Your task to perform on an android device: turn on improve location accuracy Image 0: 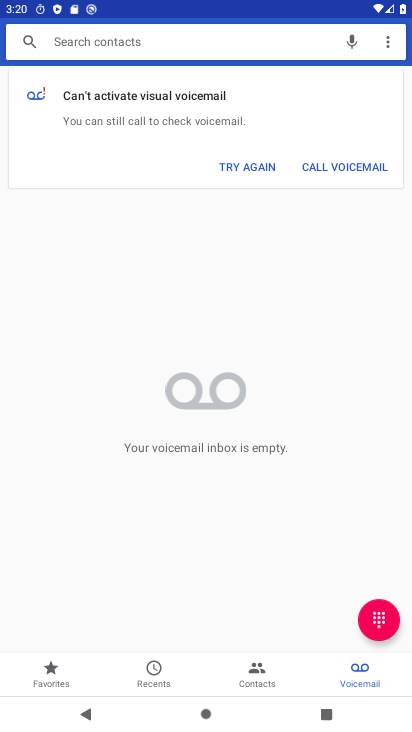
Step 0: press home button
Your task to perform on an android device: turn on improve location accuracy Image 1: 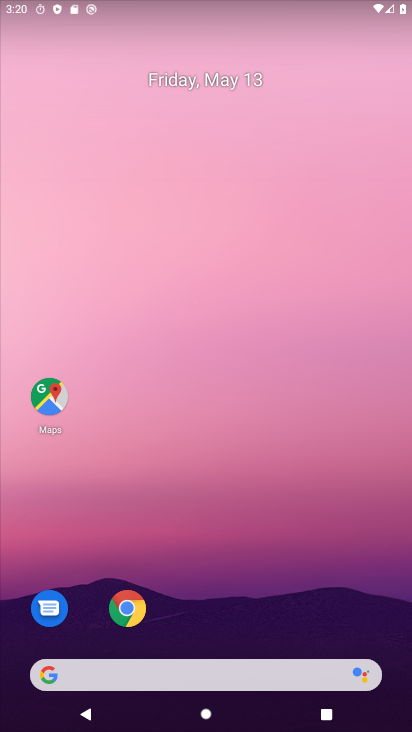
Step 1: drag from (273, 614) to (348, 65)
Your task to perform on an android device: turn on improve location accuracy Image 2: 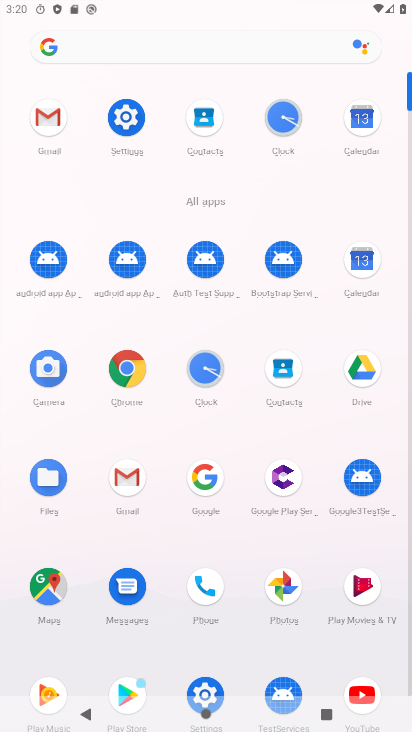
Step 2: click (132, 98)
Your task to perform on an android device: turn on improve location accuracy Image 3: 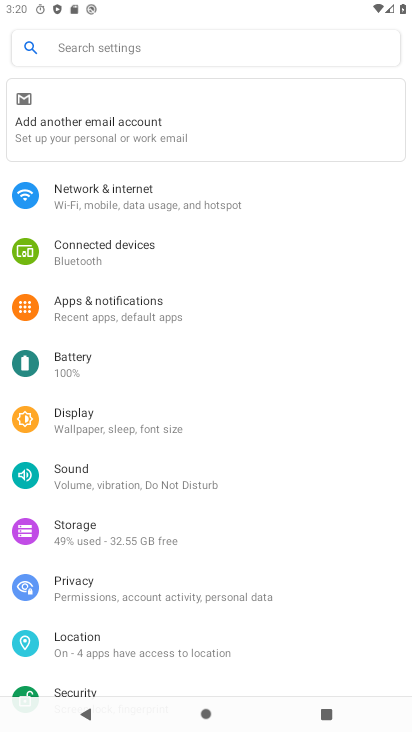
Step 3: click (74, 650)
Your task to perform on an android device: turn on improve location accuracy Image 4: 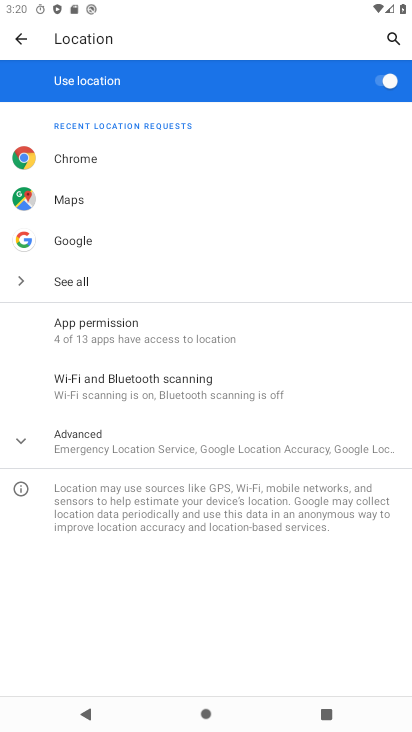
Step 4: click (118, 441)
Your task to perform on an android device: turn on improve location accuracy Image 5: 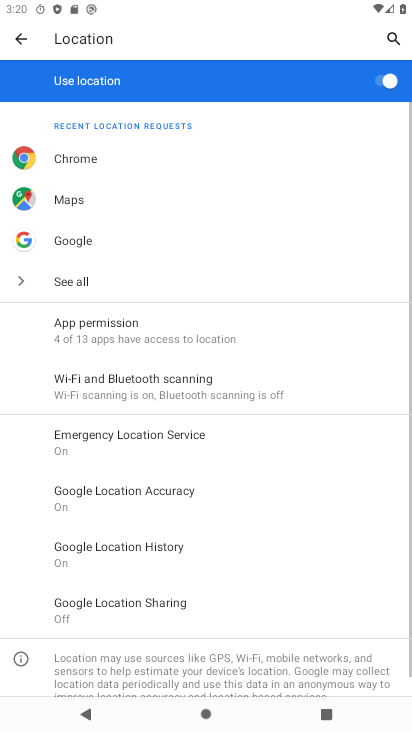
Step 5: click (118, 514)
Your task to perform on an android device: turn on improve location accuracy Image 6: 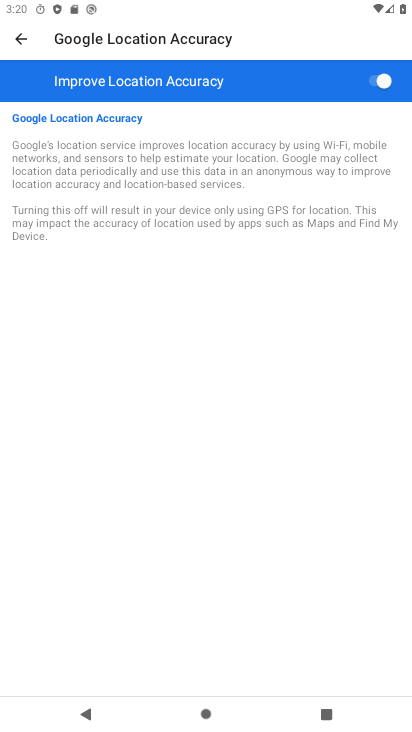
Step 6: task complete